Your task to perform on an android device: Open the web browser Image 0: 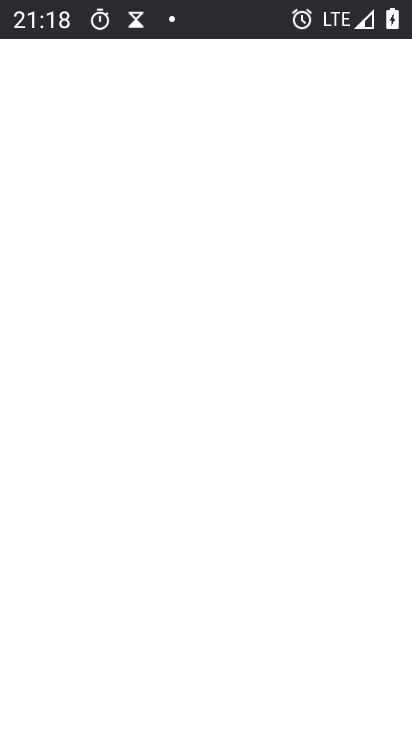
Step 0: press home button
Your task to perform on an android device: Open the web browser Image 1: 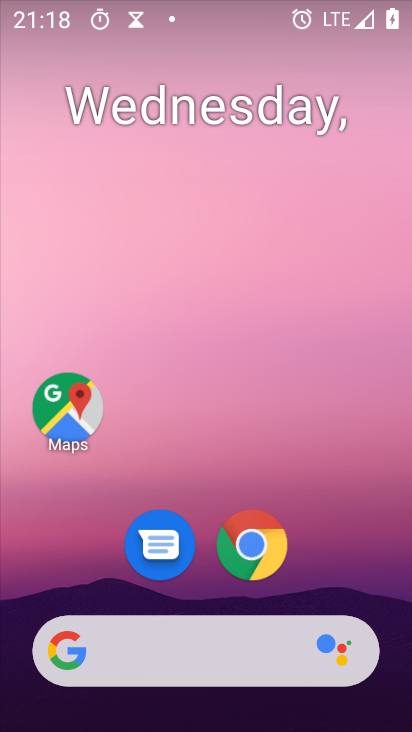
Step 1: click (260, 560)
Your task to perform on an android device: Open the web browser Image 2: 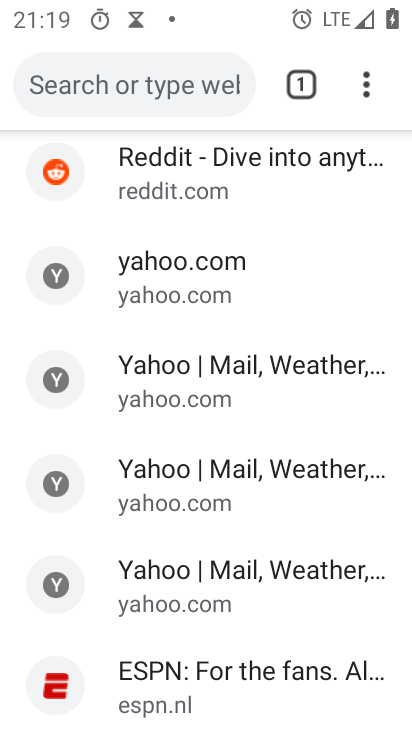
Step 2: task complete